Your task to perform on an android device: check battery use Image 0: 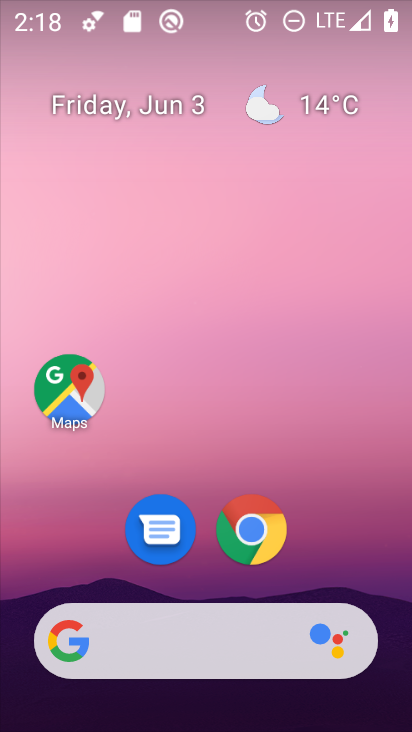
Step 0: drag from (374, 581) to (380, 293)
Your task to perform on an android device: check battery use Image 1: 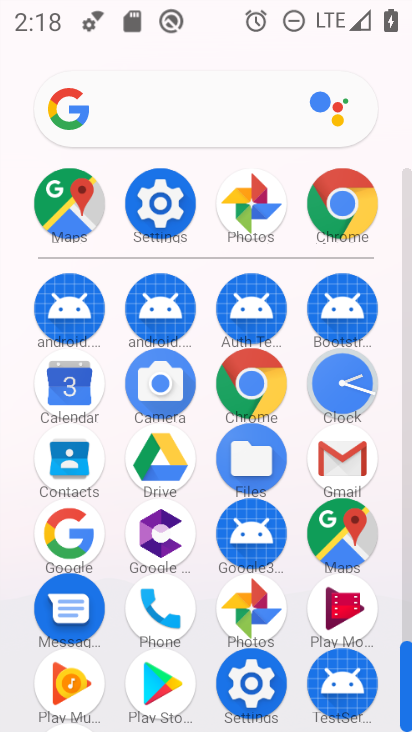
Step 1: click (175, 223)
Your task to perform on an android device: check battery use Image 2: 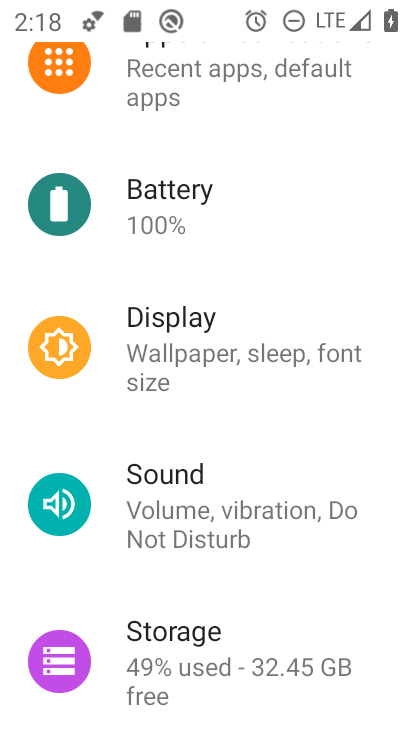
Step 2: drag from (355, 237) to (346, 331)
Your task to perform on an android device: check battery use Image 3: 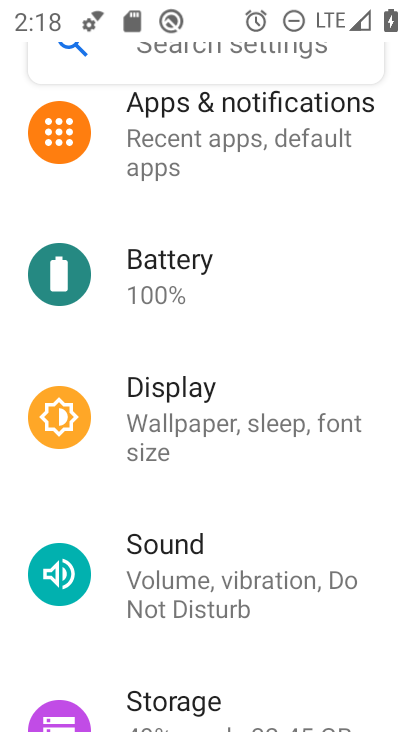
Step 3: drag from (350, 211) to (336, 416)
Your task to perform on an android device: check battery use Image 4: 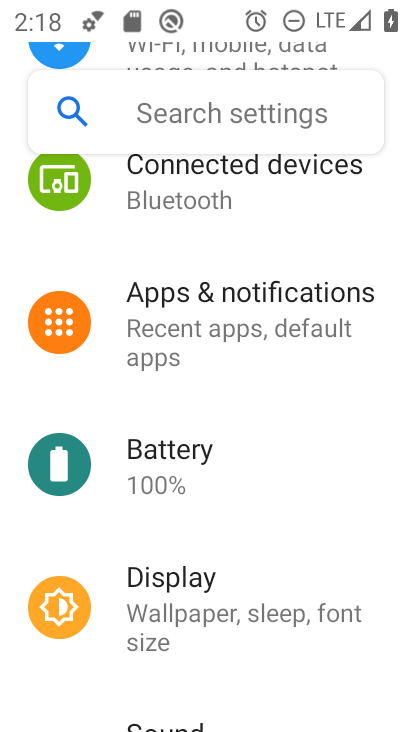
Step 4: click (216, 490)
Your task to perform on an android device: check battery use Image 5: 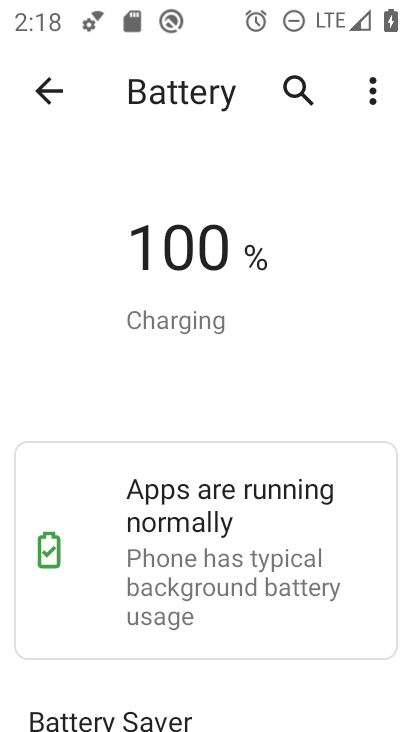
Step 5: click (372, 96)
Your task to perform on an android device: check battery use Image 6: 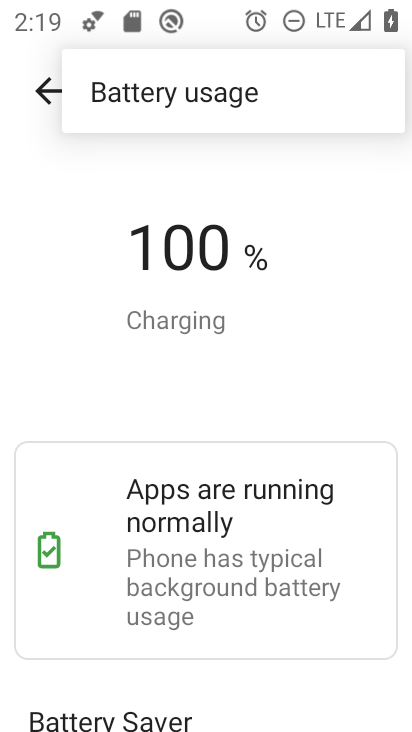
Step 6: click (279, 99)
Your task to perform on an android device: check battery use Image 7: 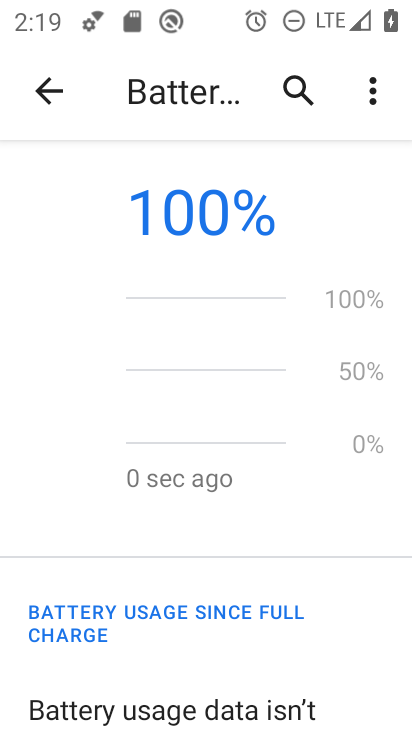
Step 7: task complete